Your task to perform on an android device: turn off sleep mode Image 0: 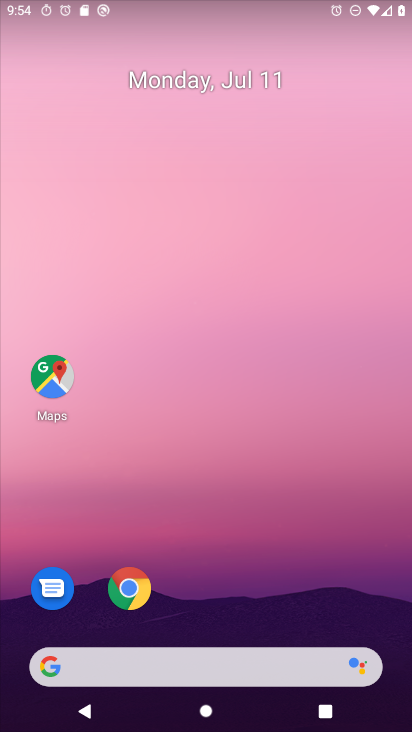
Step 0: drag from (155, 669) to (315, 64)
Your task to perform on an android device: turn off sleep mode Image 1: 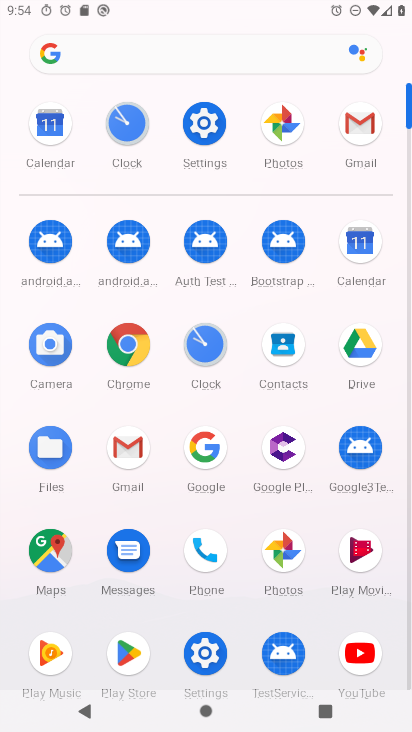
Step 1: click (216, 118)
Your task to perform on an android device: turn off sleep mode Image 2: 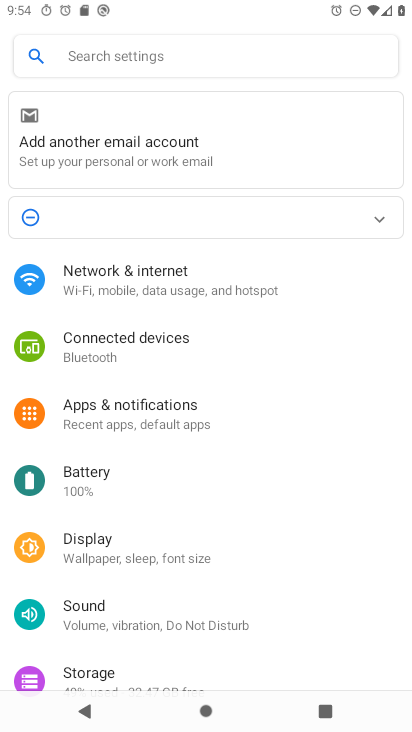
Step 2: click (130, 561)
Your task to perform on an android device: turn off sleep mode Image 3: 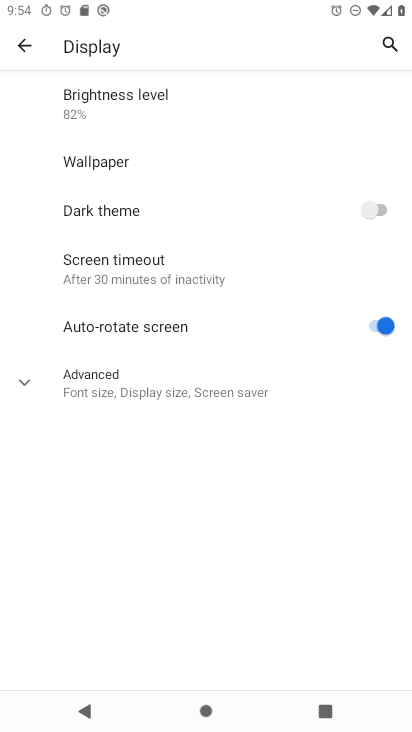
Step 3: click (123, 401)
Your task to perform on an android device: turn off sleep mode Image 4: 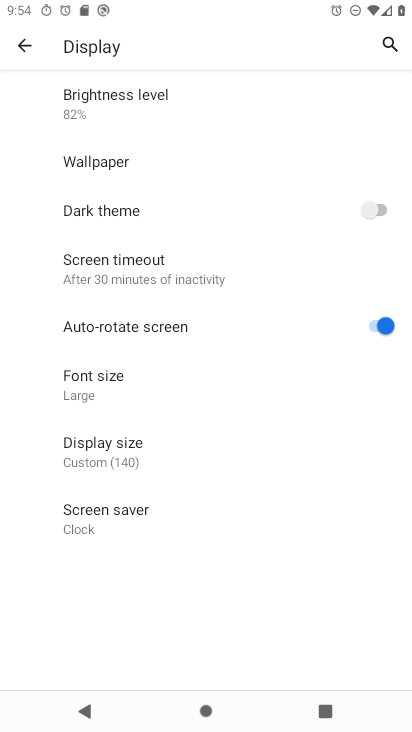
Step 4: task complete